Your task to perform on an android device: Go to privacy settings Image 0: 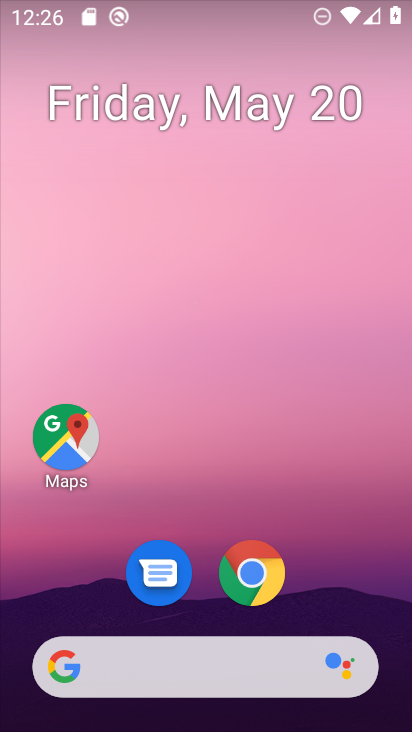
Step 0: drag from (226, 721) to (217, 237)
Your task to perform on an android device: Go to privacy settings Image 1: 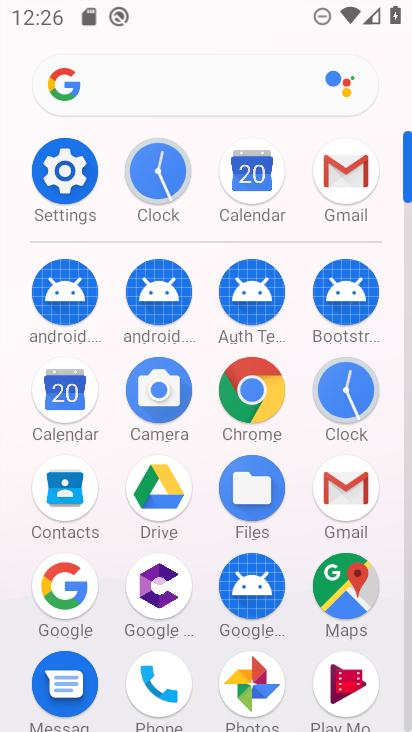
Step 1: click (55, 171)
Your task to perform on an android device: Go to privacy settings Image 2: 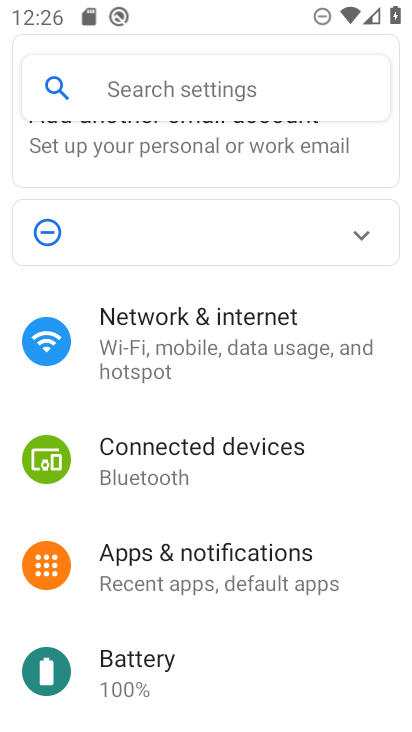
Step 2: drag from (181, 685) to (146, 263)
Your task to perform on an android device: Go to privacy settings Image 3: 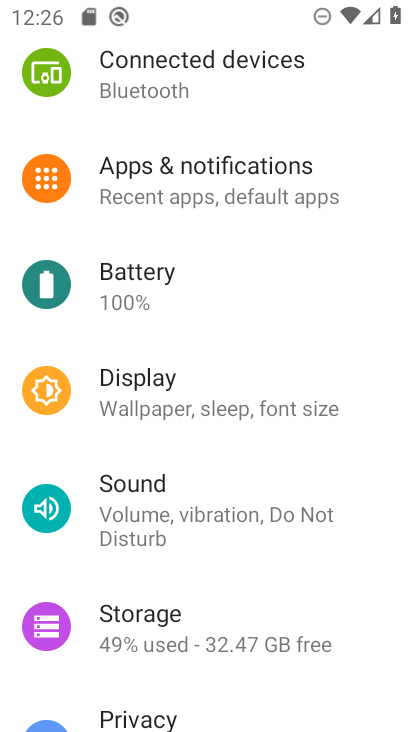
Step 3: drag from (189, 676) to (176, 275)
Your task to perform on an android device: Go to privacy settings Image 4: 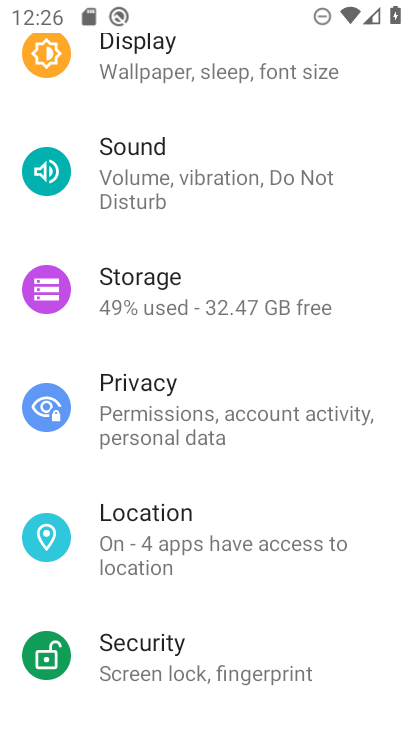
Step 4: click (138, 406)
Your task to perform on an android device: Go to privacy settings Image 5: 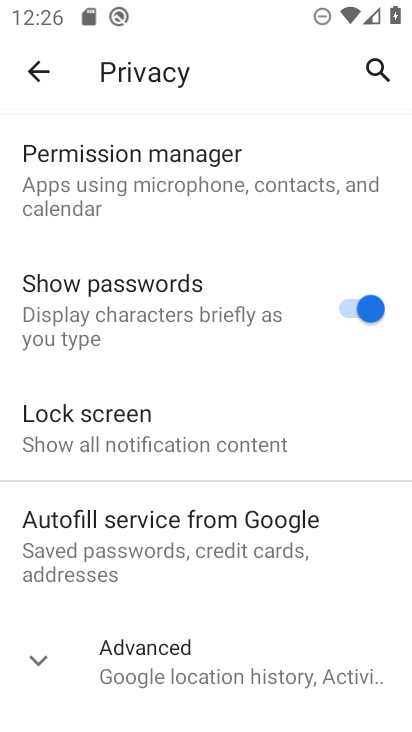
Step 5: task complete